Your task to perform on an android device: Open calendar and show me the second week of next month Image 0: 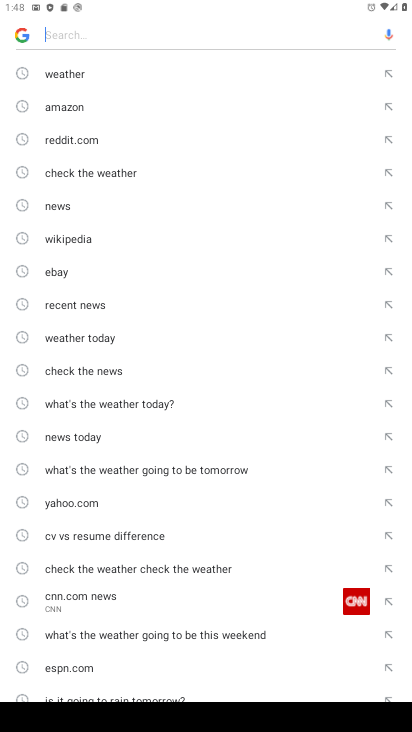
Step 0: press back button
Your task to perform on an android device: Open calendar and show me the second week of next month Image 1: 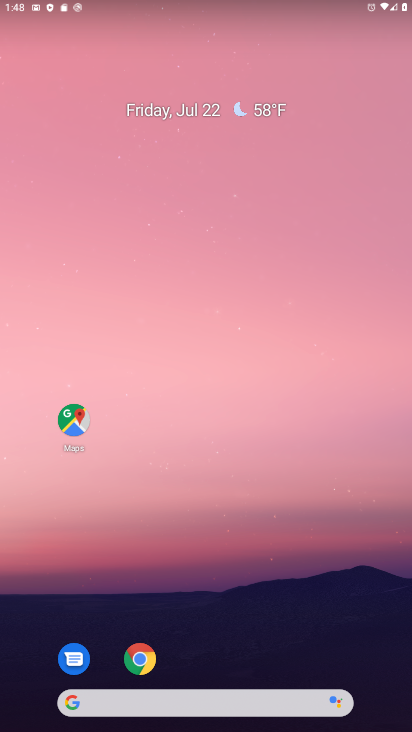
Step 1: drag from (236, 670) to (269, 84)
Your task to perform on an android device: Open calendar and show me the second week of next month Image 2: 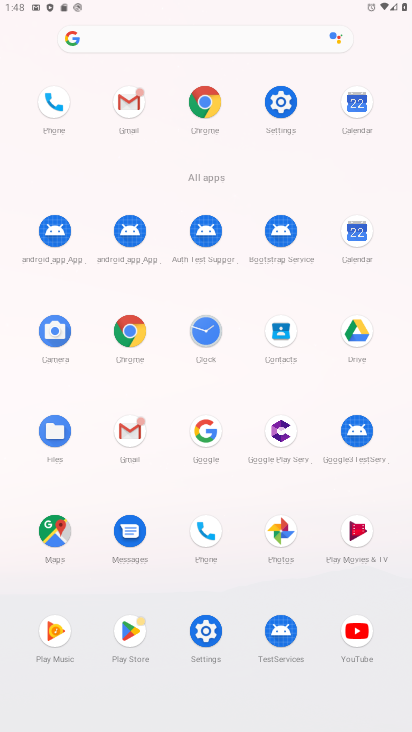
Step 2: click (284, 122)
Your task to perform on an android device: Open calendar and show me the second week of next month Image 3: 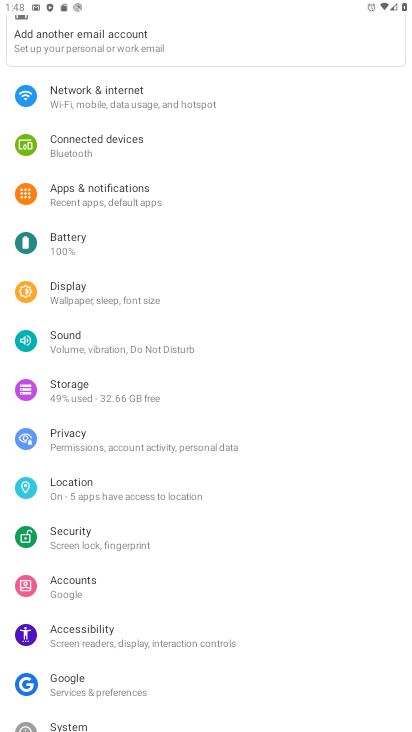
Step 3: press home button
Your task to perform on an android device: Open calendar and show me the second week of next month Image 4: 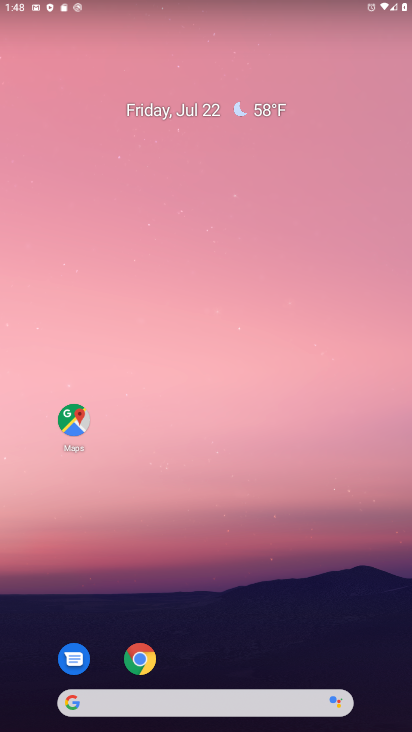
Step 4: drag from (193, 673) to (398, 111)
Your task to perform on an android device: Open calendar and show me the second week of next month Image 5: 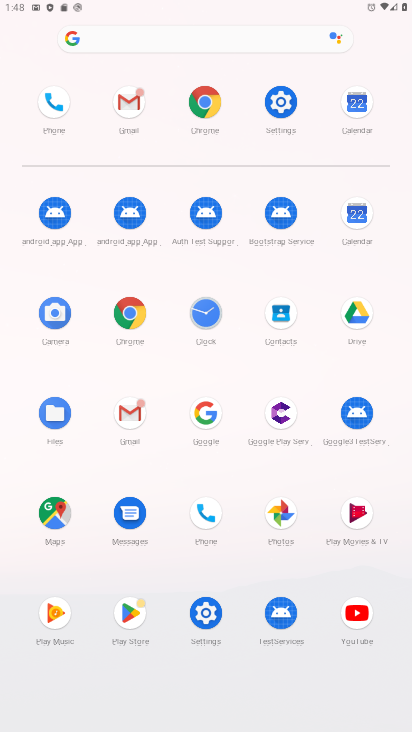
Step 5: click (358, 236)
Your task to perform on an android device: Open calendar and show me the second week of next month Image 6: 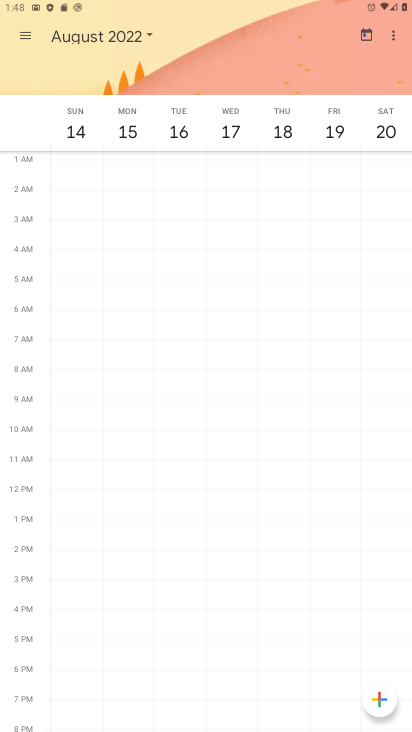
Step 6: task complete